Your task to perform on an android device: Turn on the flashlight Image 0: 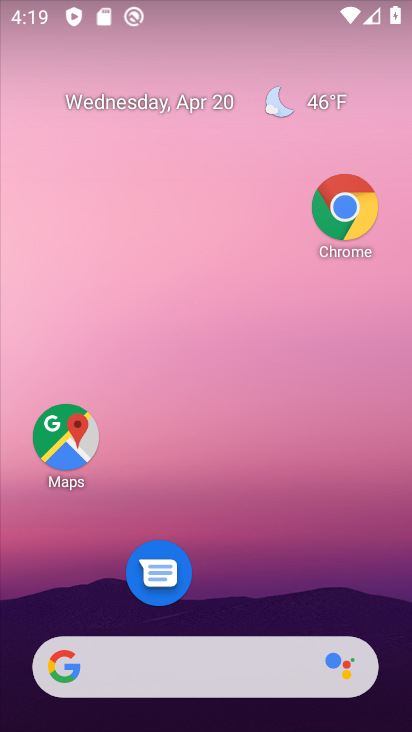
Step 0: drag from (245, 190) to (245, 433)
Your task to perform on an android device: Turn on the flashlight Image 1: 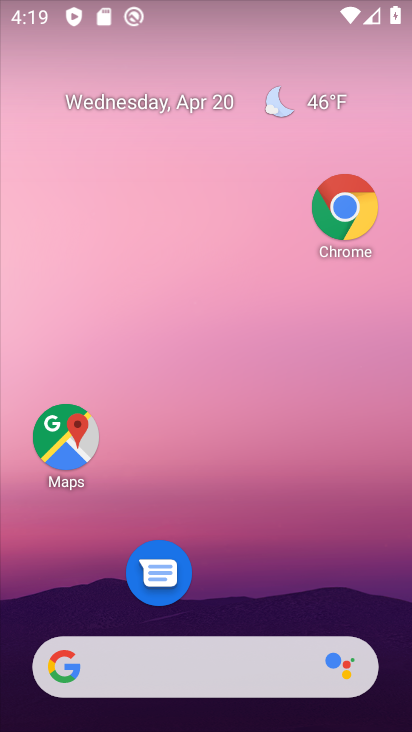
Step 1: task complete